Your task to perform on an android device: turn off airplane mode Image 0: 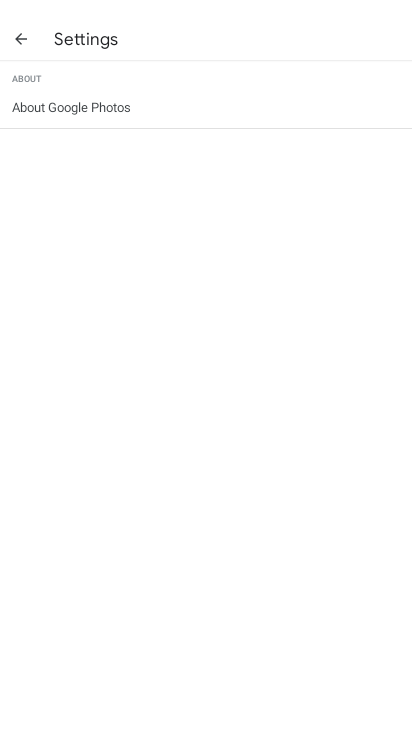
Step 0: press home button
Your task to perform on an android device: turn off airplane mode Image 1: 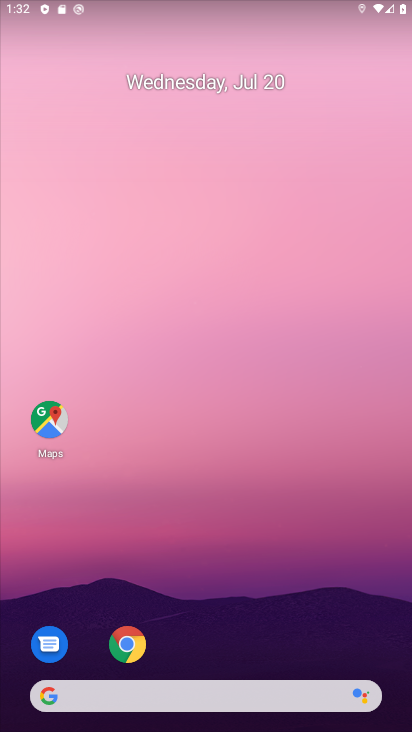
Step 1: drag from (332, 639) to (303, 121)
Your task to perform on an android device: turn off airplane mode Image 2: 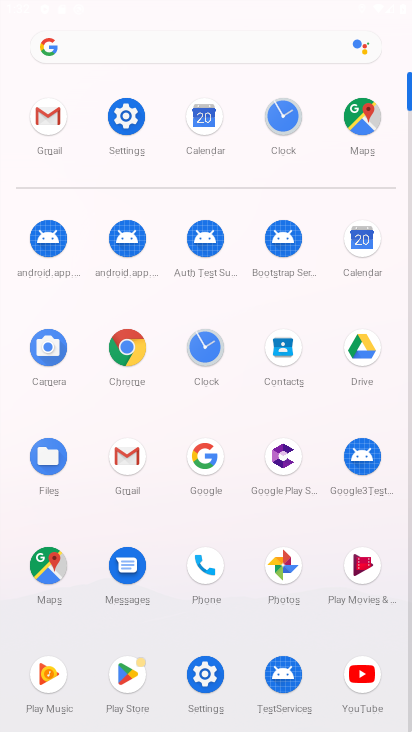
Step 2: click (131, 118)
Your task to perform on an android device: turn off airplane mode Image 3: 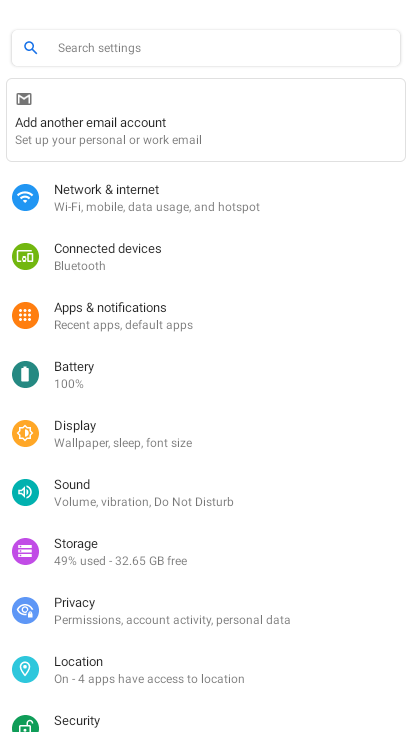
Step 3: click (132, 205)
Your task to perform on an android device: turn off airplane mode Image 4: 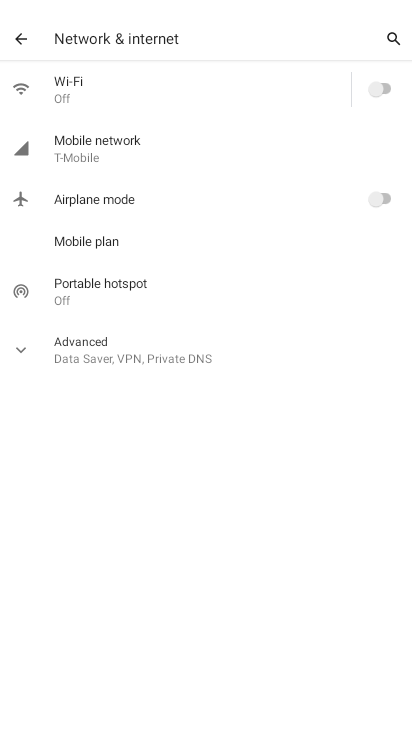
Step 4: task complete